Your task to perform on an android device: Set the phone to "Do not disturb". Image 0: 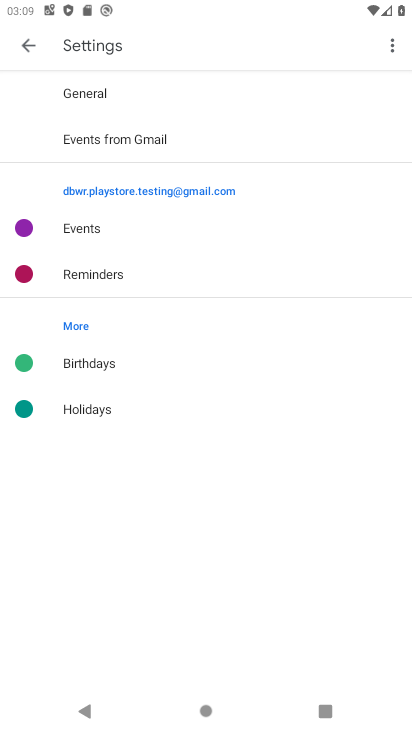
Step 0: press home button
Your task to perform on an android device: Set the phone to "Do not disturb". Image 1: 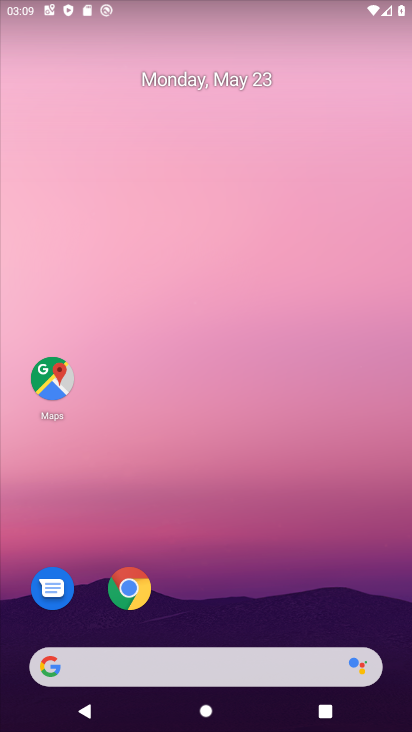
Step 1: drag from (236, 722) to (235, 83)
Your task to perform on an android device: Set the phone to "Do not disturb". Image 2: 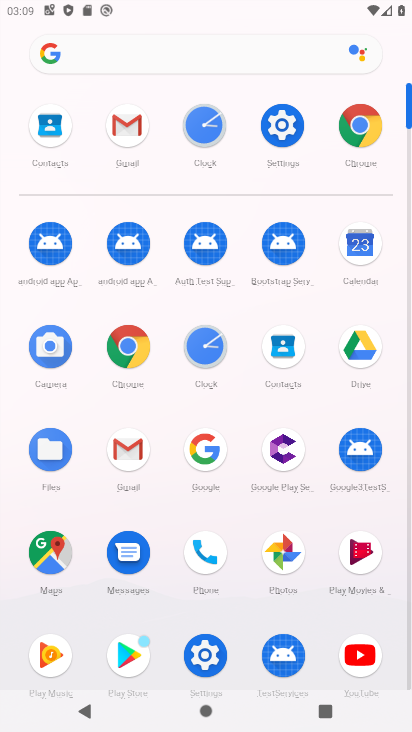
Step 2: click (208, 642)
Your task to perform on an android device: Set the phone to "Do not disturb". Image 3: 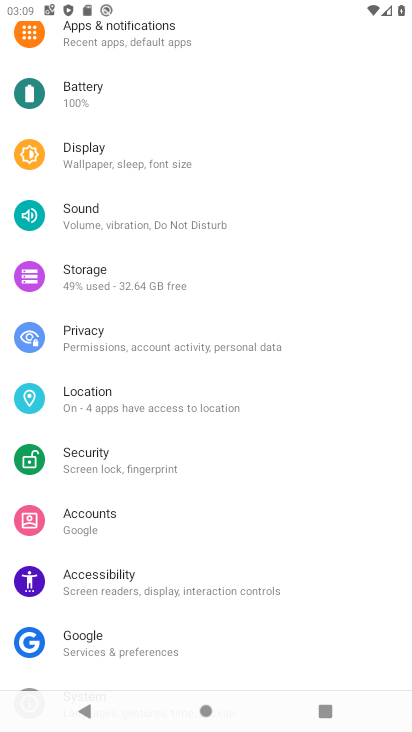
Step 3: drag from (194, 150) to (217, 396)
Your task to perform on an android device: Set the phone to "Do not disturb". Image 4: 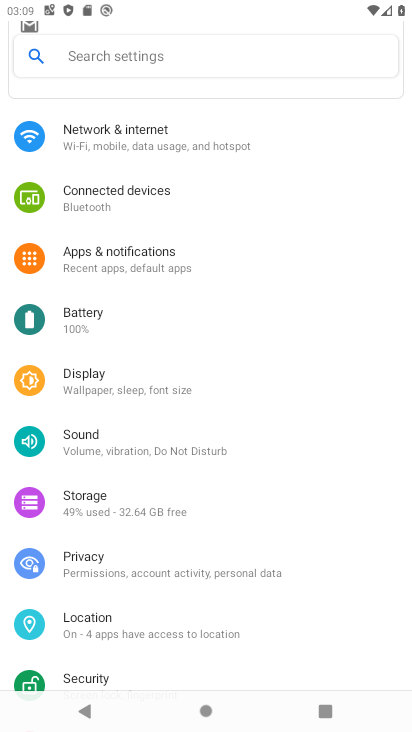
Step 4: click (168, 449)
Your task to perform on an android device: Set the phone to "Do not disturb". Image 5: 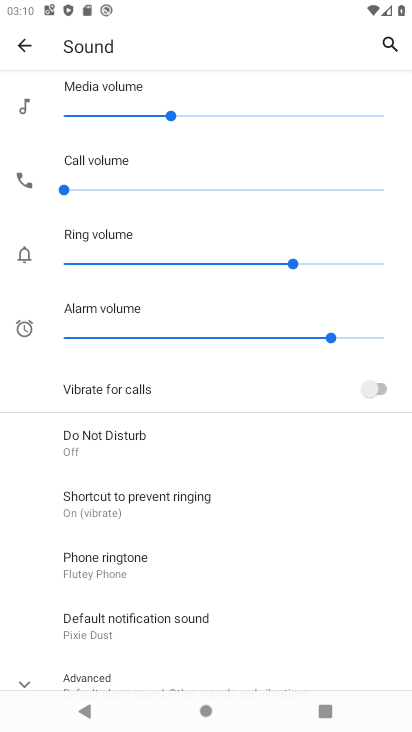
Step 5: click (118, 435)
Your task to perform on an android device: Set the phone to "Do not disturb". Image 6: 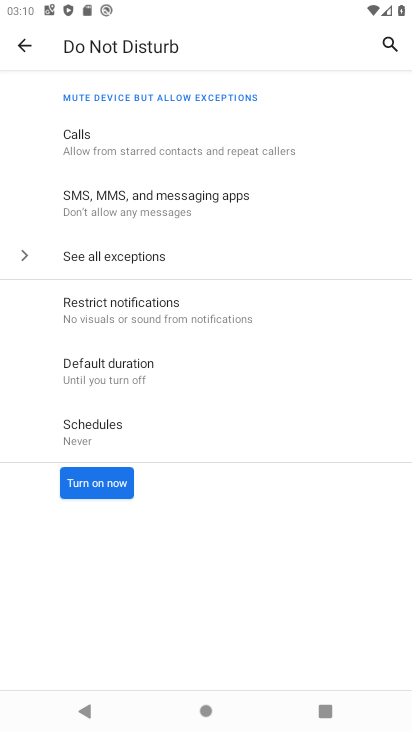
Step 6: click (89, 480)
Your task to perform on an android device: Set the phone to "Do not disturb". Image 7: 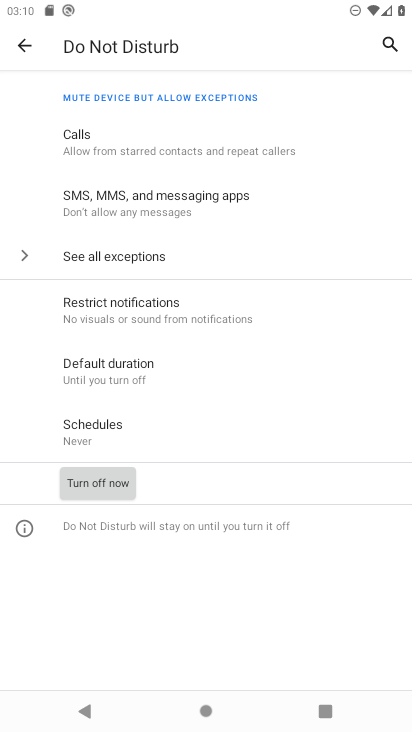
Step 7: task complete